Your task to perform on an android device: Add "razer blade" to the cart on amazon.com, then select checkout. Image 0: 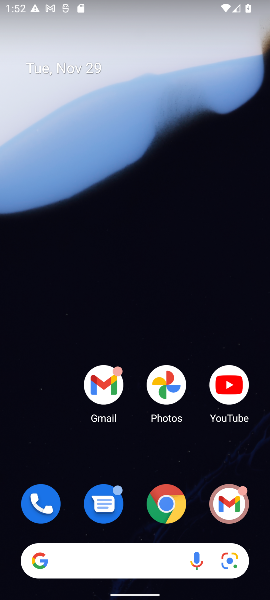
Step 0: click (171, 515)
Your task to perform on an android device: Add "razer blade" to the cart on amazon.com, then select checkout. Image 1: 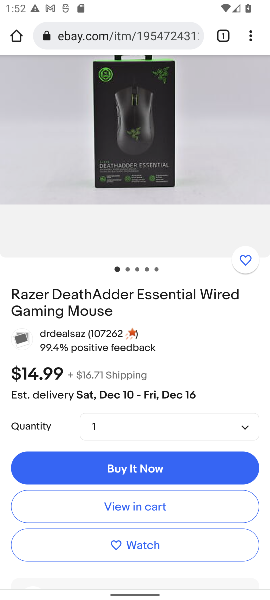
Step 1: click (111, 35)
Your task to perform on an android device: Add "razer blade" to the cart on amazon.com, then select checkout. Image 2: 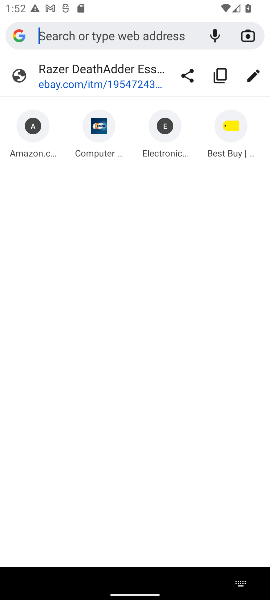
Step 2: click (21, 146)
Your task to perform on an android device: Add "razer blade" to the cart on amazon.com, then select checkout. Image 3: 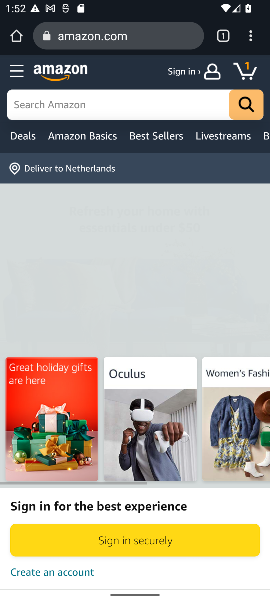
Step 3: click (77, 109)
Your task to perform on an android device: Add "razer blade" to the cart on amazon.com, then select checkout. Image 4: 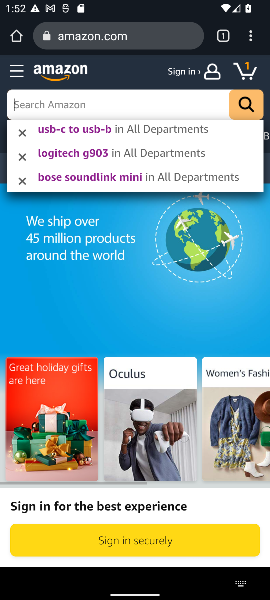
Step 4: type "razer blade"
Your task to perform on an android device: Add "razer blade" to the cart on amazon.com, then select checkout. Image 5: 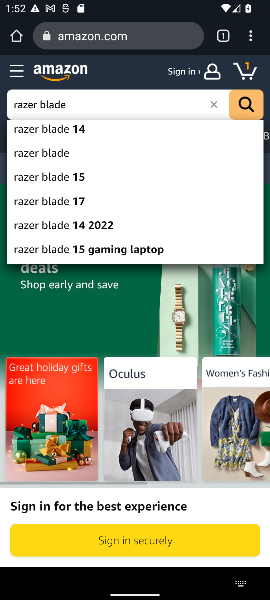
Step 5: click (43, 157)
Your task to perform on an android device: Add "razer blade" to the cart on amazon.com, then select checkout. Image 6: 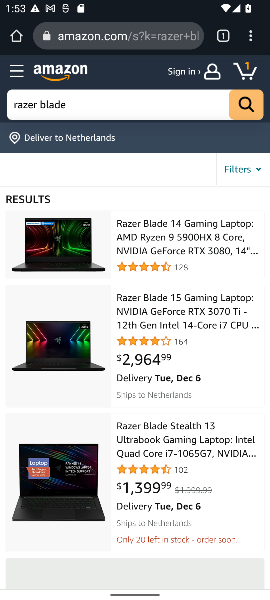
Step 6: click (68, 251)
Your task to perform on an android device: Add "razer blade" to the cart on amazon.com, then select checkout. Image 7: 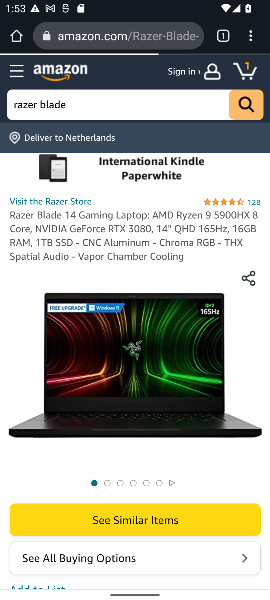
Step 7: drag from (216, 373) to (225, 268)
Your task to perform on an android device: Add "razer blade" to the cart on amazon.com, then select checkout. Image 8: 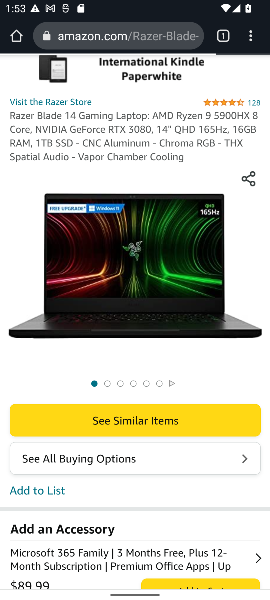
Step 8: press back button
Your task to perform on an android device: Add "razer blade" to the cart on amazon.com, then select checkout. Image 9: 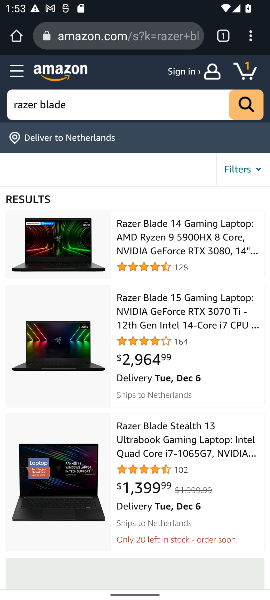
Step 9: click (144, 323)
Your task to perform on an android device: Add "razer blade" to the cart on amazon.com, then select checkout. Image 10: 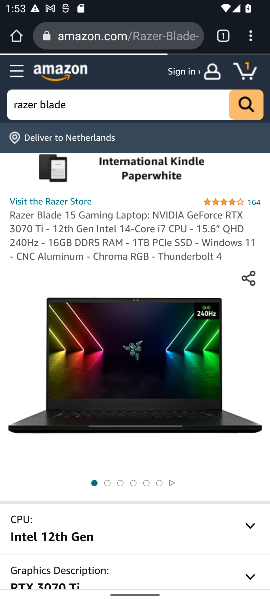
Step 10: drag from (134, 394) to (160, 219)
Your task to perform on an android device: Add "razer blade" to the cart on amazon.com, then select checkout. Image 11: 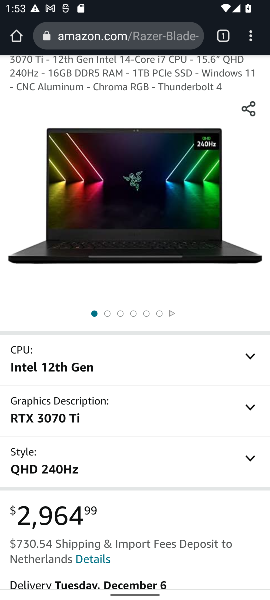
Step 11: drag from (168, 528) to (158, 263)
Your task to perform on an android device: Add "razer blade" to the cart on amazon.com, then select checkout. Image 12: 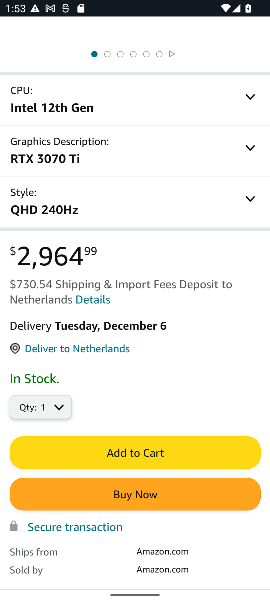
Step 12: click (150, 448)
Your task to perform on an android device: Add "razer blade" to the cart on amazon.com, then select checkout. Image 13: 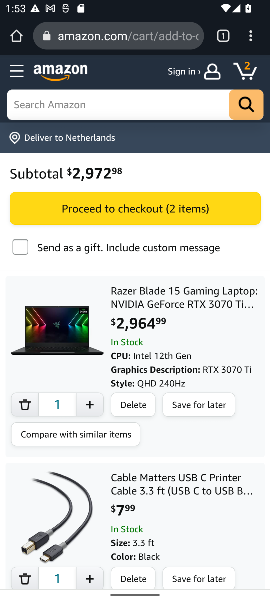
Step 13: click (120, 212)
Your task to perform on an android device: Add "razer blade" to the cart on amazon.com, then select checkout. Image 14: 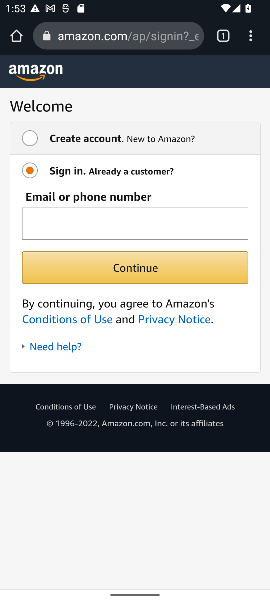
Step 14: task complete